Your task to perform on an android device: Open the stopwatch Image 0: 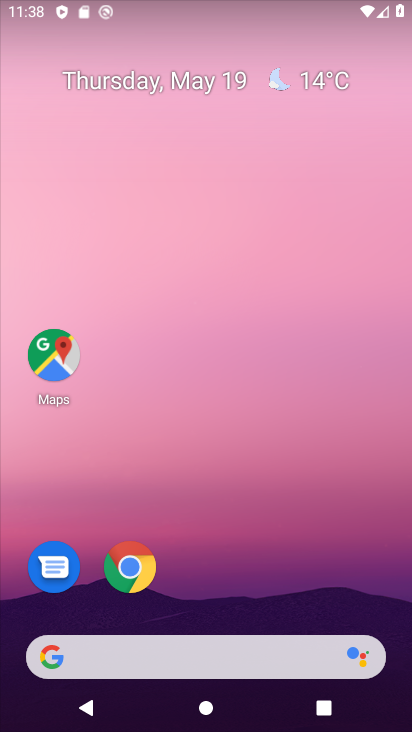
Step 0: drag from (313, 583) to (242, 5)
Your task to perform on an android device: Open the stopwatch Image 1: 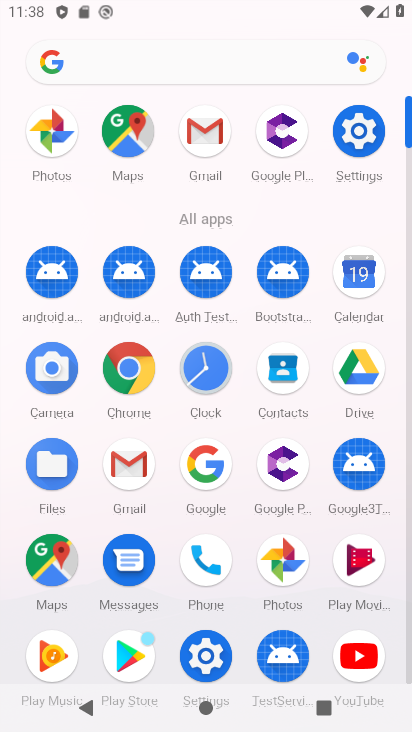
Step 1: click (194, 387)
Your task to perform on an android device: Open the stopwatch Image 2: 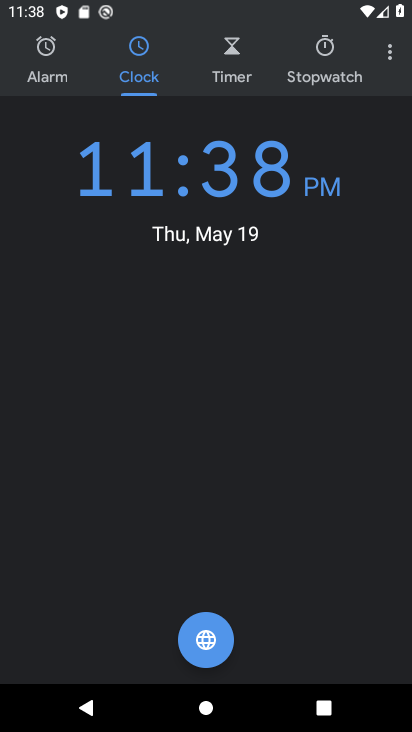
Step 2: click (336, 46)
Your task to perform on an android device: Open the stopwatch Image 3: 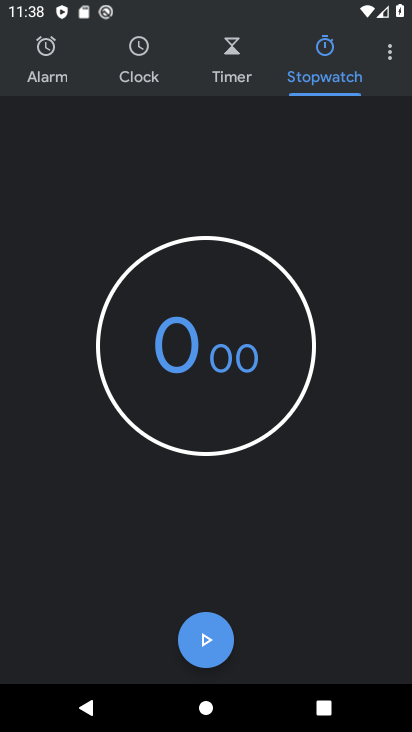
Step 3: task complete